Your task to perform on an android device: Find coffee shops on Maps Image 0: 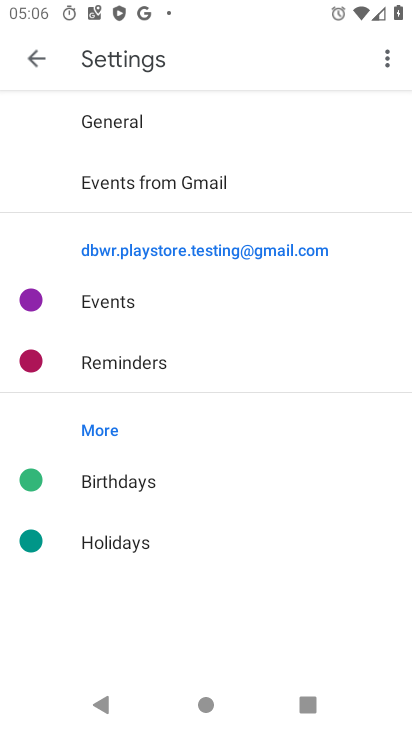
Step 0: press home button
Your task to perform on an android device: Find coffee shops on Maps Image 1: 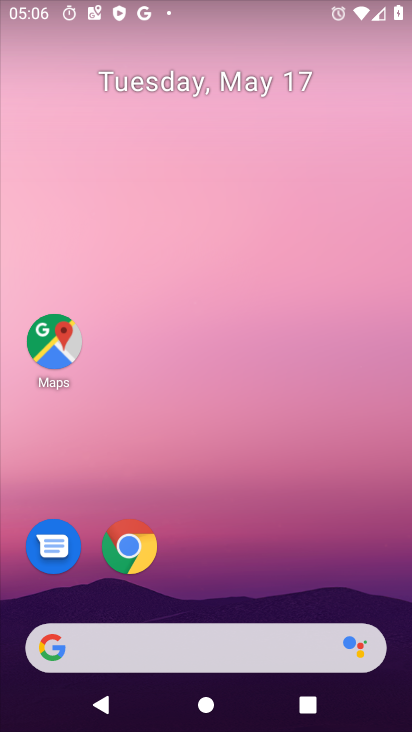
Step 1: click (50, 350)
Your task to perform on an android device: Find coffee shops on Maps Image 2: 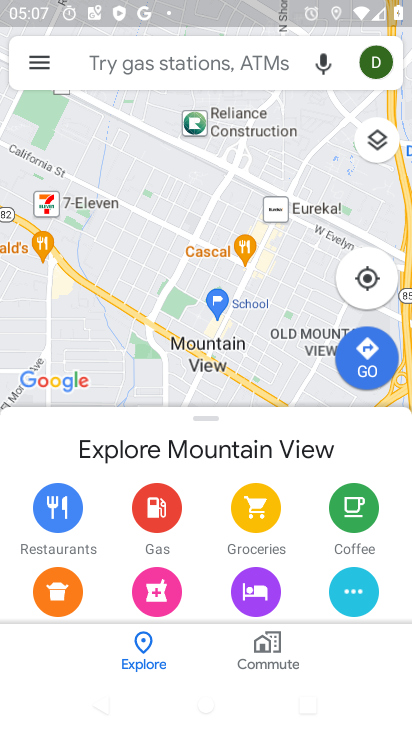
Step 2: click (161, 68)
Your task to perform on an android device: Find coffee shops on Maps Image 3: 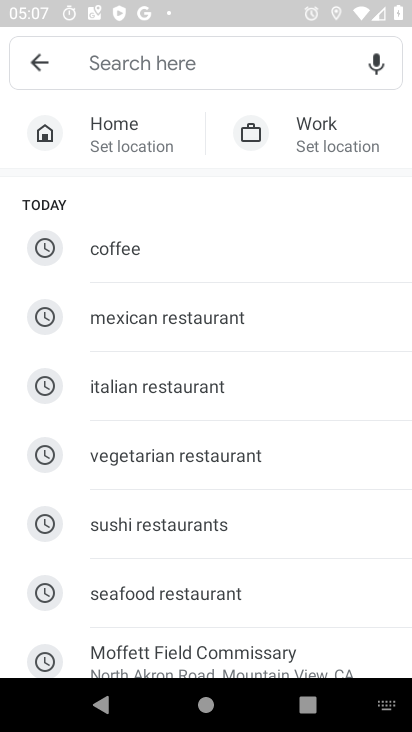
Step 3: type "coffee shops"
Your task to perform on an android device: Find coffee shops on Maps Image 4: 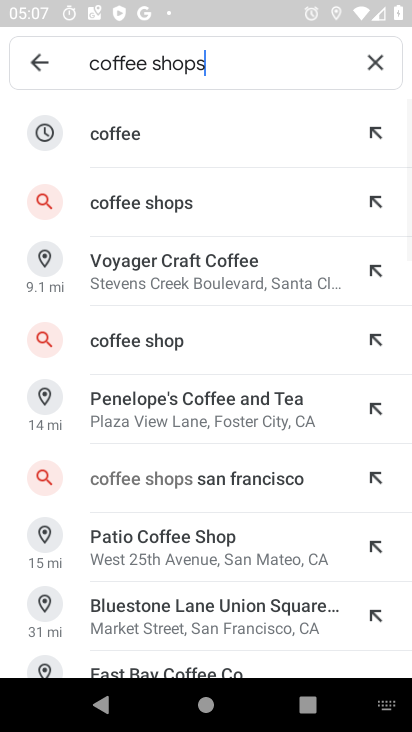
Step 4: click (123, 197)
Your task to perform on an android device: Find coffee shops on Maps Image 5: 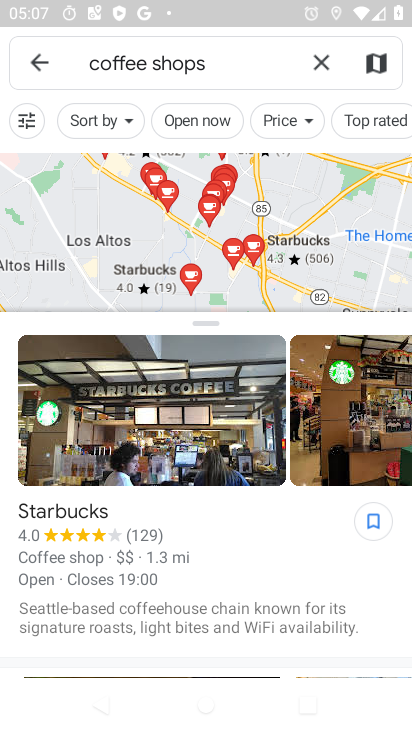
Step 5: task complete